Your task to perform on an android device: change notifications settings Image 0: 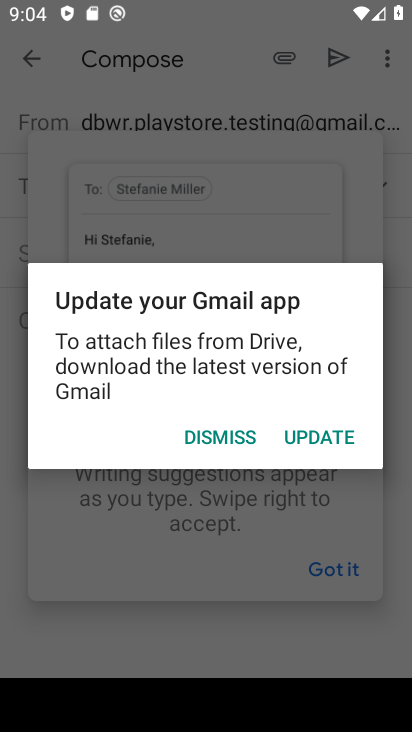
Step 0: press home button
Your task to perform on an android device: change notifications settings Image 1: 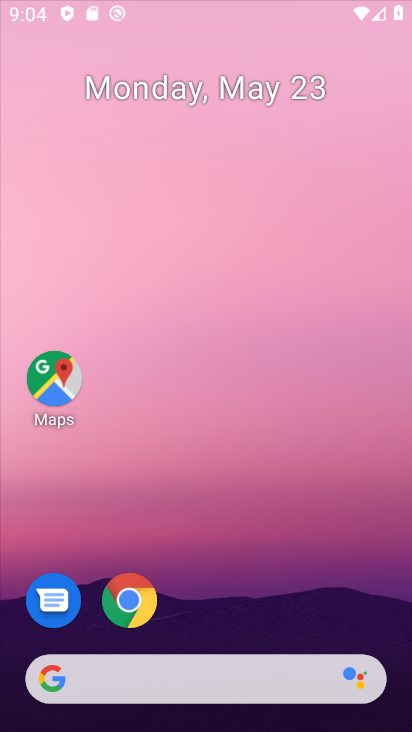
Step 1: drag from (316, 695) to (374, 81)
Your task to perform on an android device: change notifications settings Image 2: 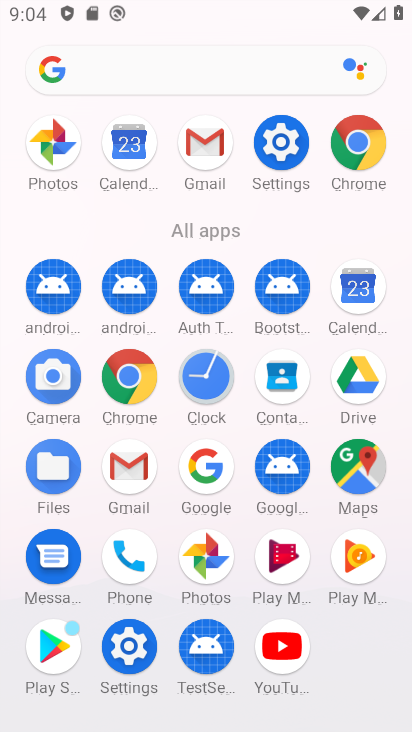
Step 2: click (274, 143)
Your task to perform on an android device: change notifications settings Image 3: 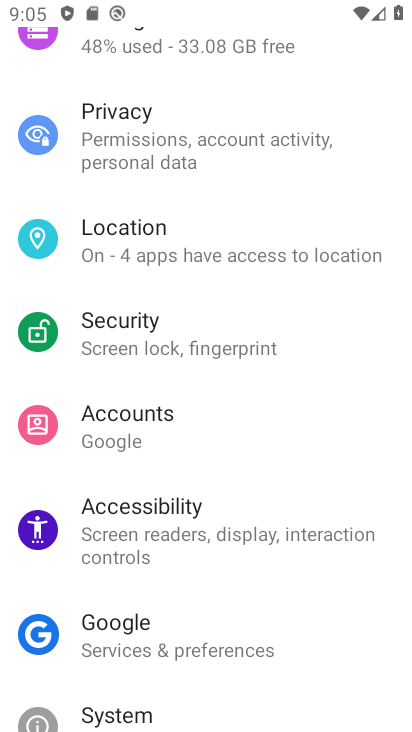
Step 3: drag from (259, 674) to (350, 710)
Your task to perform on an android device: change notifications settings Image 4: 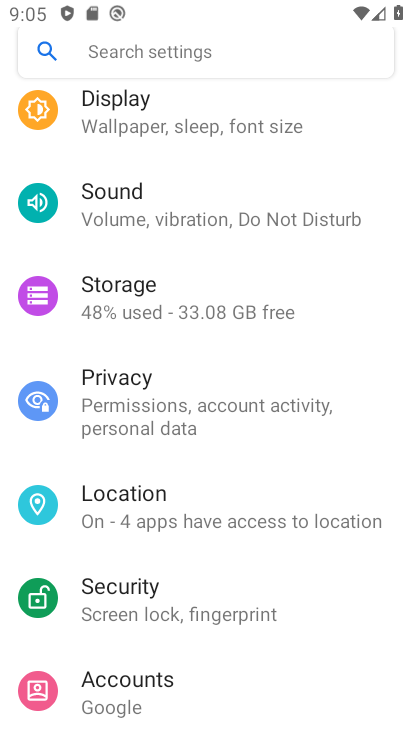
Step 4: drag from (236, 350) to (277, 629)
Your task to perform on an android device: change notifications settings Image 5: 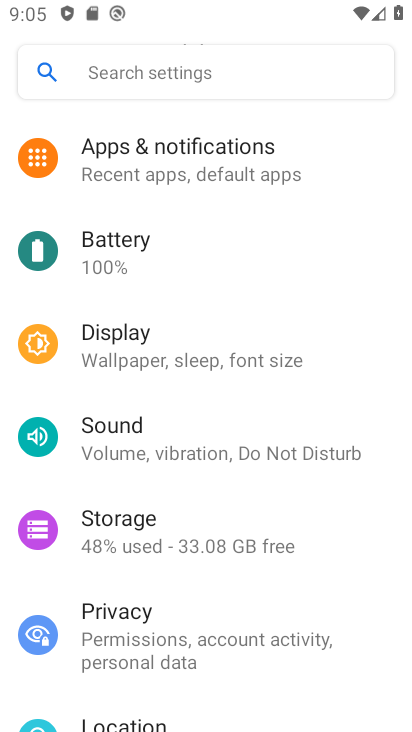
Step 5: click (193, 144)
Your task to perform on an android device: change notifications settings Image 6: 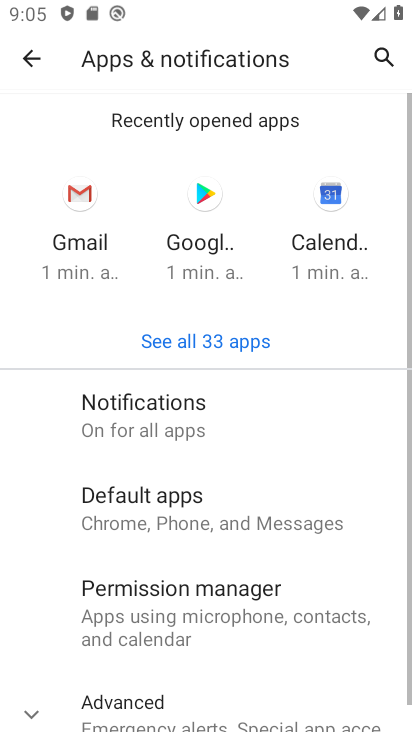
Step 6: drag from (313, 668) to (339, 381)
Your task to perform on an android device: change notifications settings Image 7: 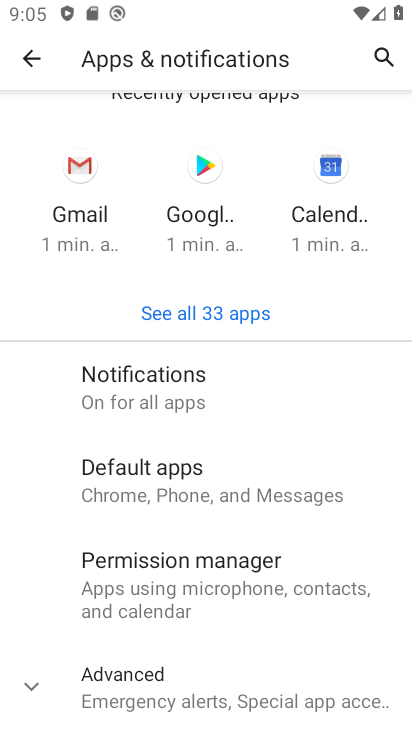
Step 7: click (215, 368)
Your task to perform on an android device: change notifications settings Image 8: 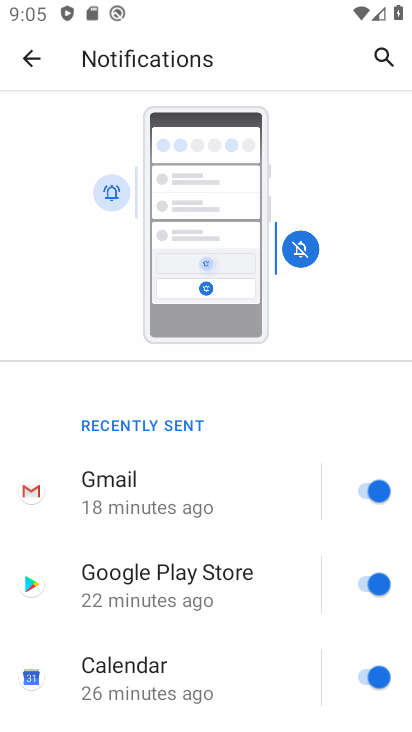
Step 8: click (364, 496)
Your task to perform on an android device: change notifications settings Image 9: 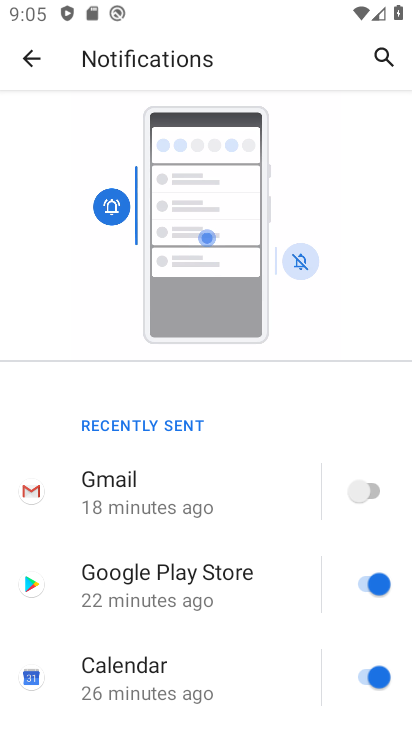
Step 9: task complete